Your task to perform on an android device: change notification settings in the gmail app Image 0: 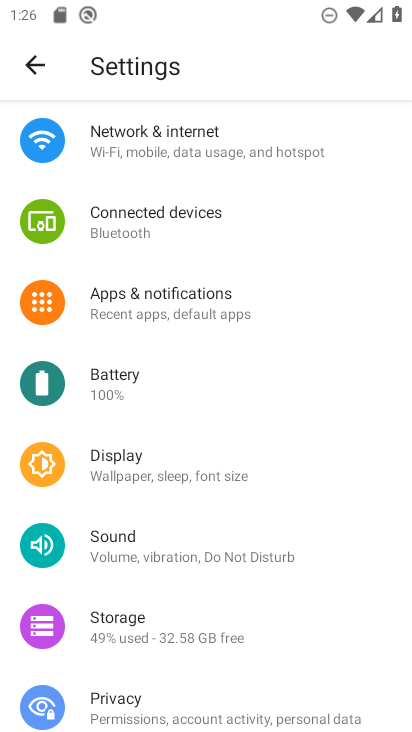
Step 0: press back button
Your task to perform on an android device: change notification settings in the gmail app Image 1: 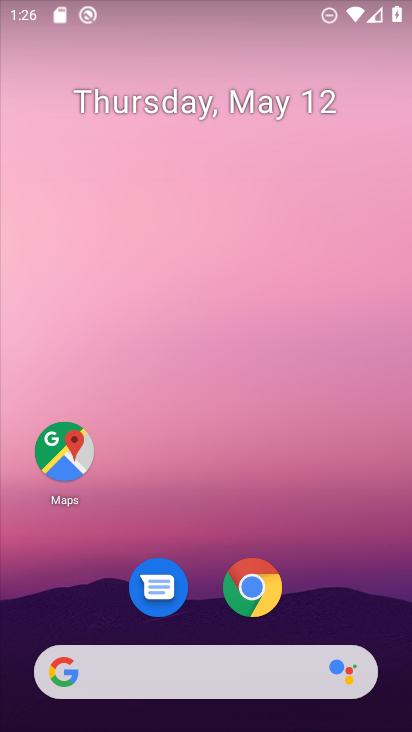
Step 1: drag from (338, 562) to (268, 144)
Your task to perform on an android device: change notification settings in the gmail app Image 2: 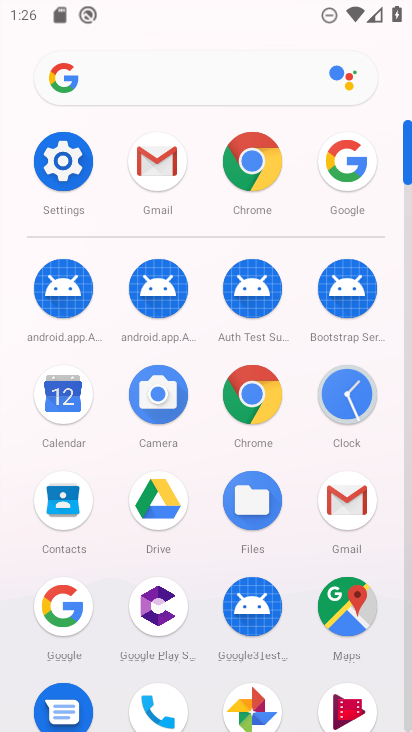
Step 2: click (344, 501)
Your task to perform on an android device: change notification settings in the gmail app Image 3: 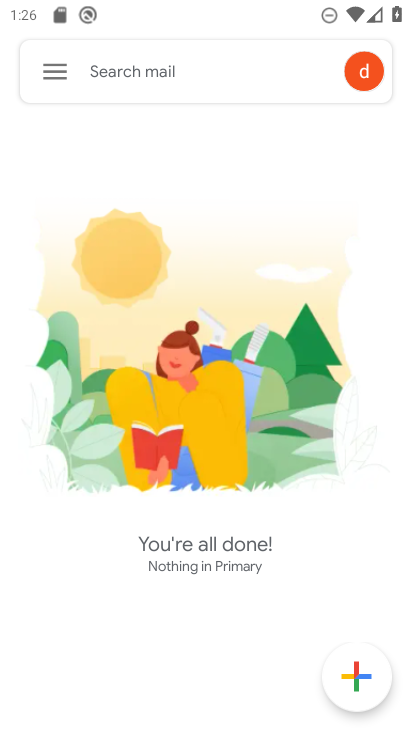
Step 3: click (56, 74)
Your task to perform on an android device: change notification settings in the gmail app Image 4: 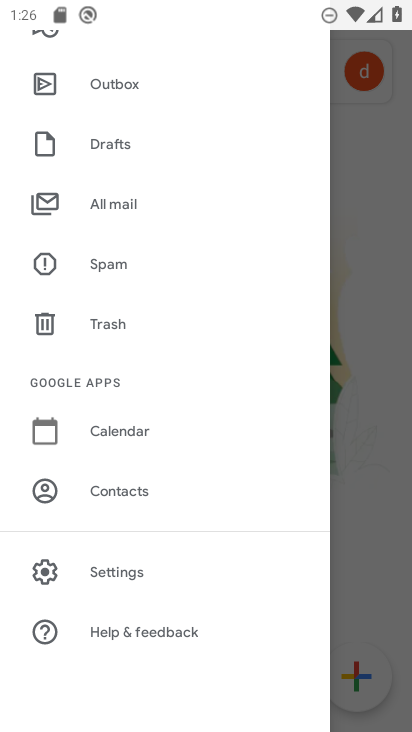
Step 4: click (130, 570)
Your task to perform on an android device: change notification settings in the gmail app Image 5: 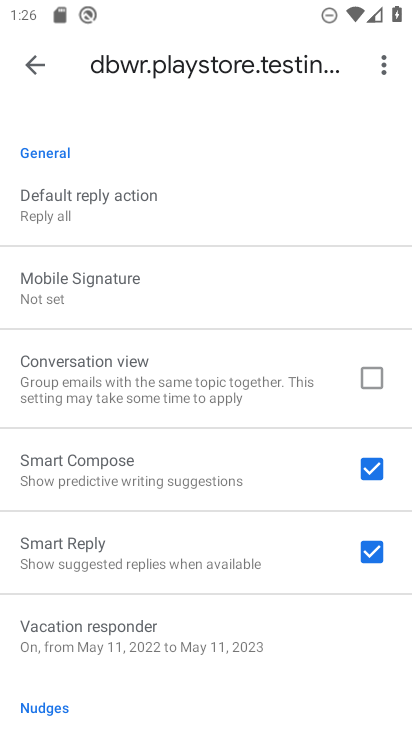
Step 5: drag from (295, 177) to (217, 394)
Your task to perform on an android device: change notification settings in the gmail app Image 6: 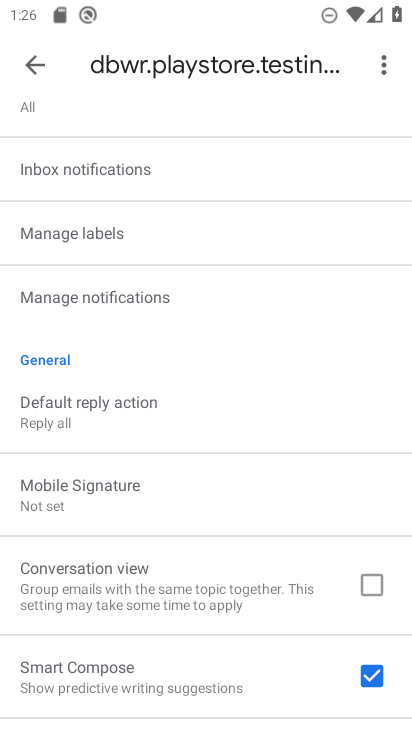
Step 6: click (150, 296)
Your task to perform on an android device: change notification settings in the gmail app Image 7: 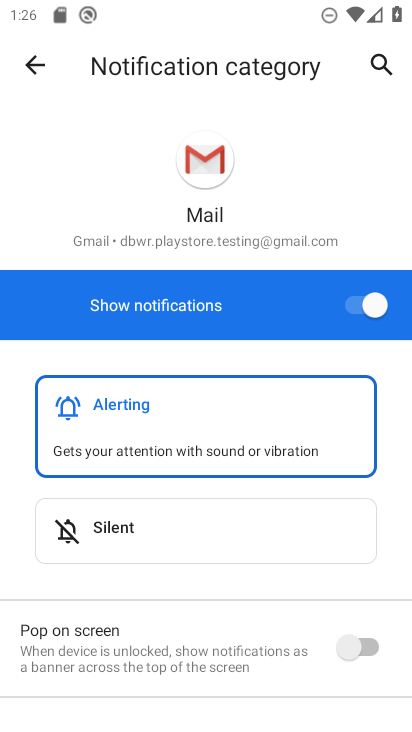
Step 7: click (380, 305)
Your task to perform on an android device: change notification settings in the gmail app Image 8: 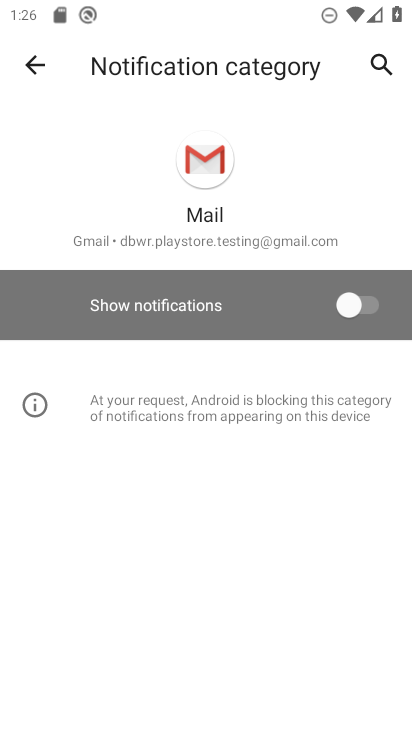
Step 8: task complete